Your task to perform on an android device: turn on improve location accuracy Image 0: 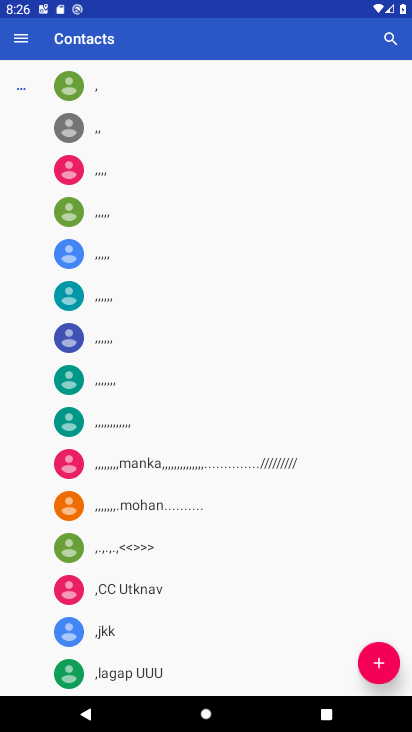
Step 0: press home button
Your task to perform on an android device: turn on improve location accuracy Image 1: 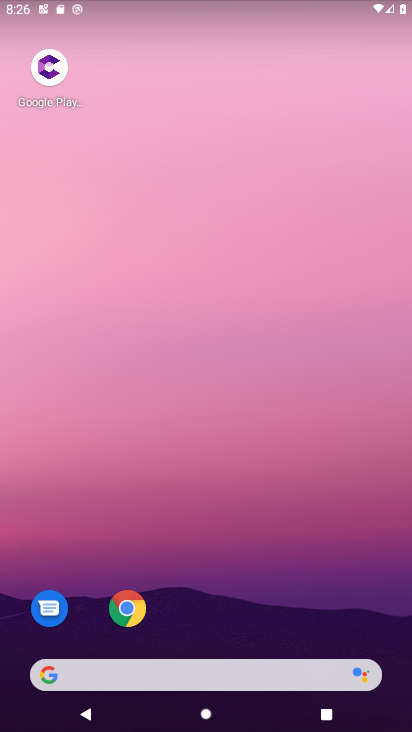
Step 1: drag from (366, 597) to (337, 139)
Your task to perform on an android device: turn on improve location accuracy Image 2: 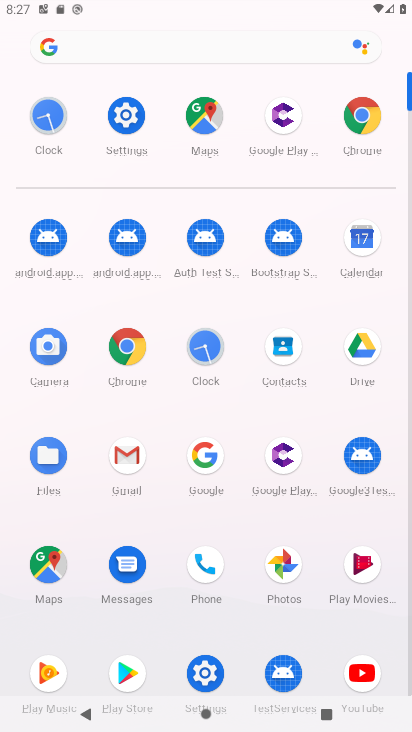
Step 2: click (133, 117)
Your task to perform on an android device: turn on improve location accuracy Image 3: 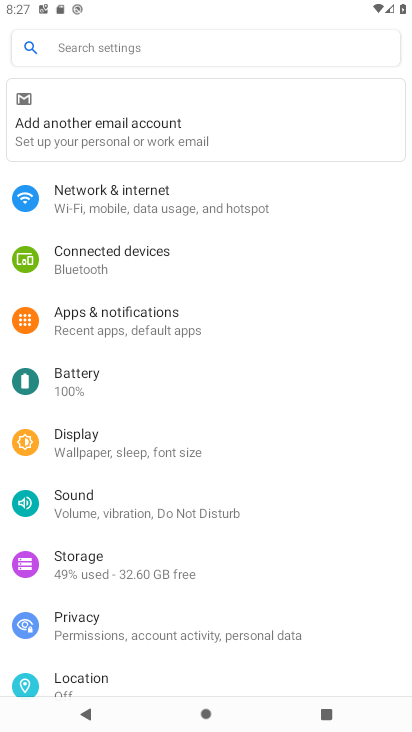
Step 3: drag from (364, 581) to (356, 442)
Your task to perform on an android device: turn on improve location accuracy Image 4: 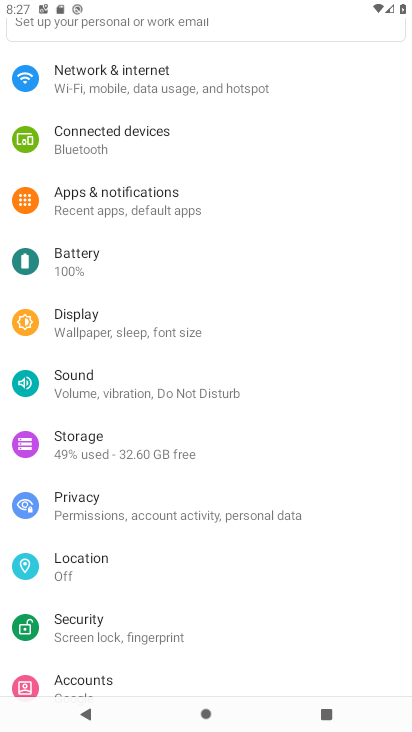
Step 4: drag from (346, 584) to (382, 401)
Your task to perform on an android device: turn on improve location accuracy Image 5: 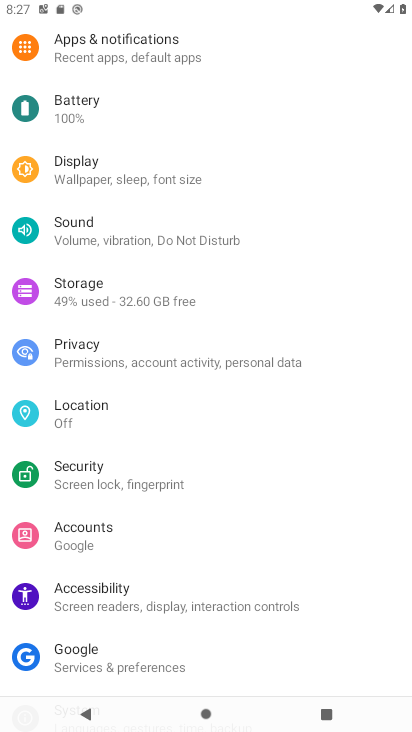
Step 5: drag from (352, 594) to (357, 473)
Your task to perform on an android device: turn on improve location accuracy Image 6: 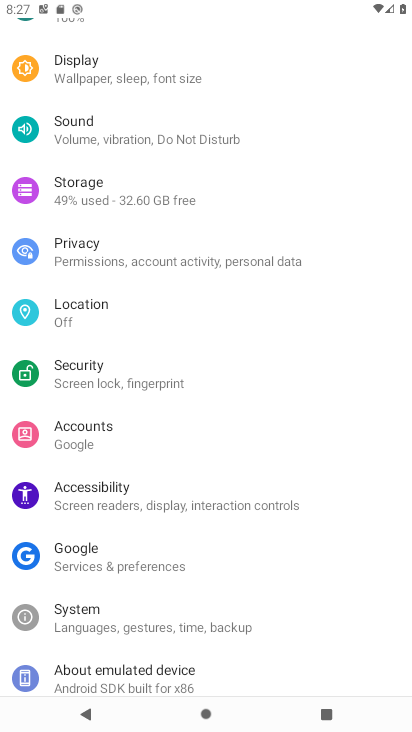
Step 6: drag from (358, 624) to (360, 505)
Your task to perform on an android device: turn on improve location accuracy Image 7: 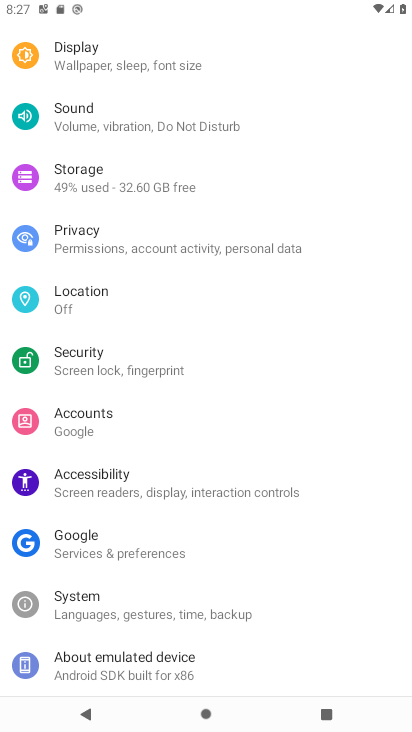
Step 7: drag from (347, 384) to (341, 466)
Your task to perform on an android device: turn on improve location accuracy Image 8: 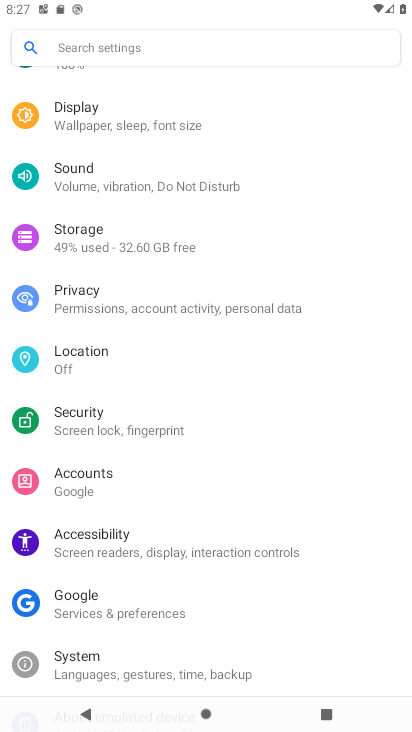
Step 8: drag from (354, 341) to (353, 440)
Your task to perform on an android device: turn on improve location accuracy Image 9: 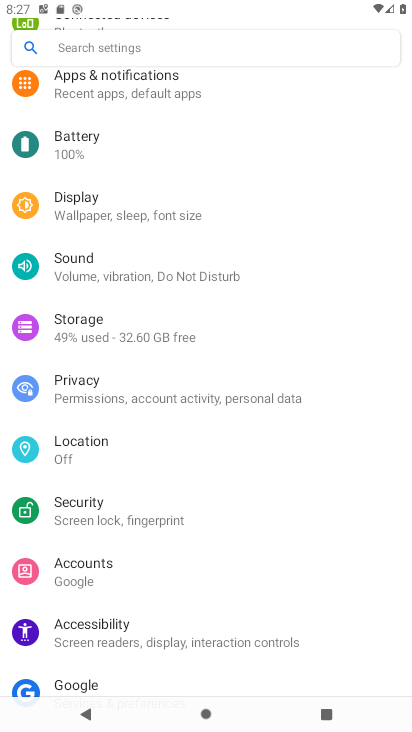
Step 9: click (169, 461)
Your task to perform on an android device: turn on improve location accuracy Image 10: 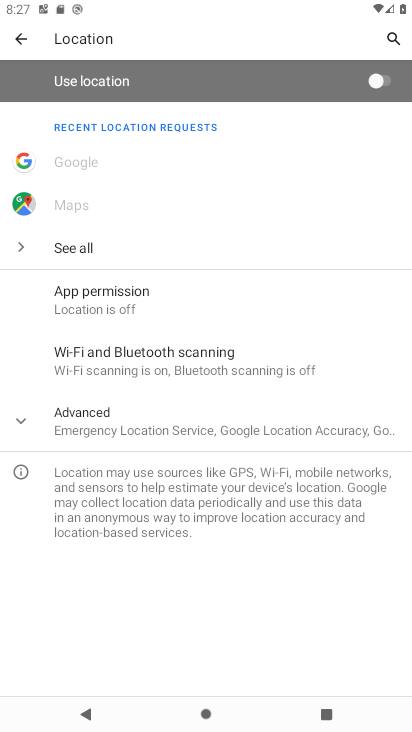
Step 10: click (306, 426)
Your task to perform on an android device: turn on improve location accuracy Image 11: 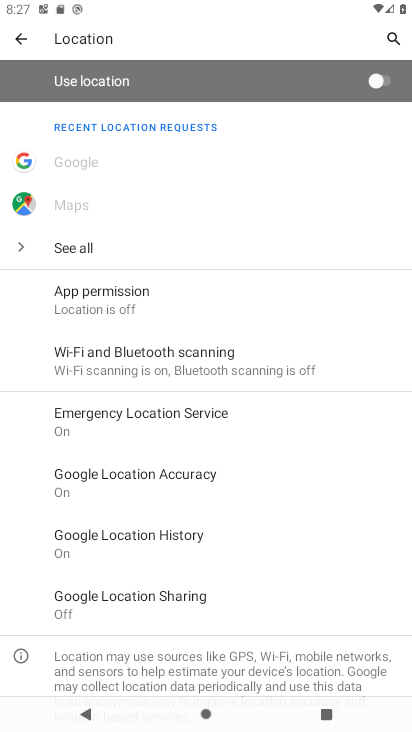
Step 11: drag from (316, 561) to (312, 461)
Your task to perform on an android device: turn on improve location accuracy Image 12: 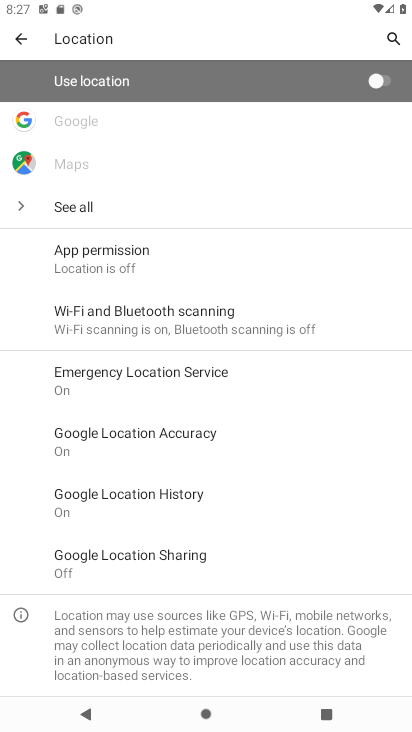
Step 12: drag from (303, 583) to (322, 505)
Your task to perform on an android device: turn on improve location accuracy Image 13: 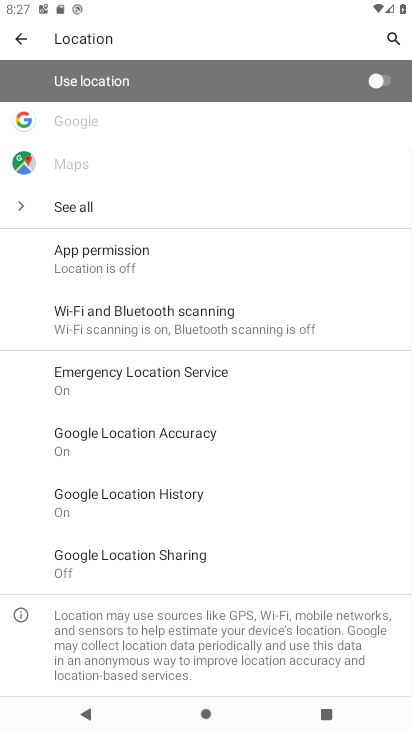
Step 13: drag from (333, 623) to (336, 531)
Your task to perform on an android device: turn on improve location accuracy Image 14: 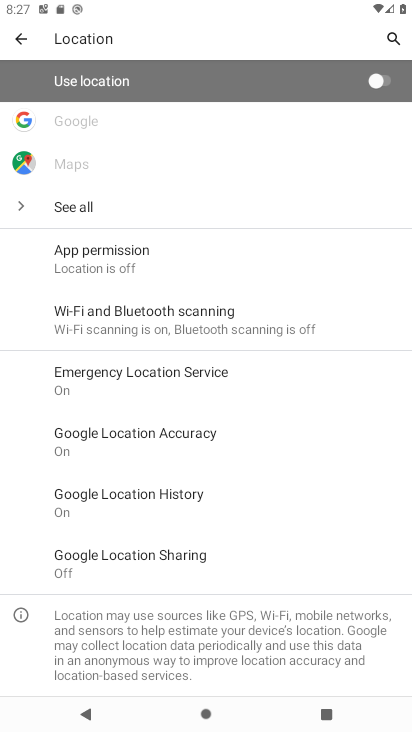
Step 14: click (200, 447)
Your task to perform on an android device: turn on improve location accuracy Image 15: 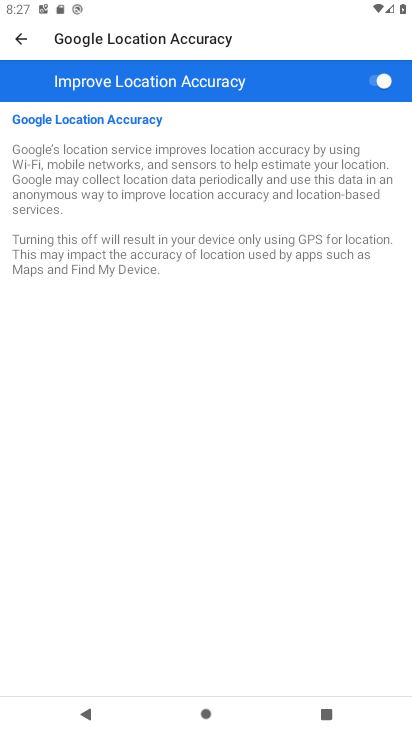
Step 15: task complete